Your task to perform on an android device: allow notifications from all sites in the chrome app Image 0: 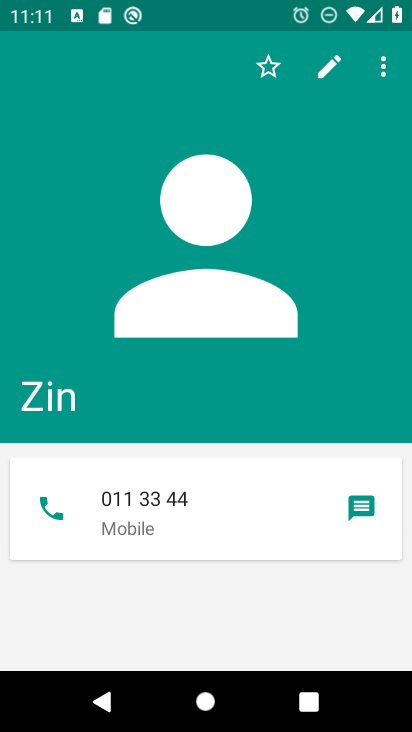
Step 0: press home button
Your task to perform on an android device: allow notifications from all sites in the chrome app Image 1: 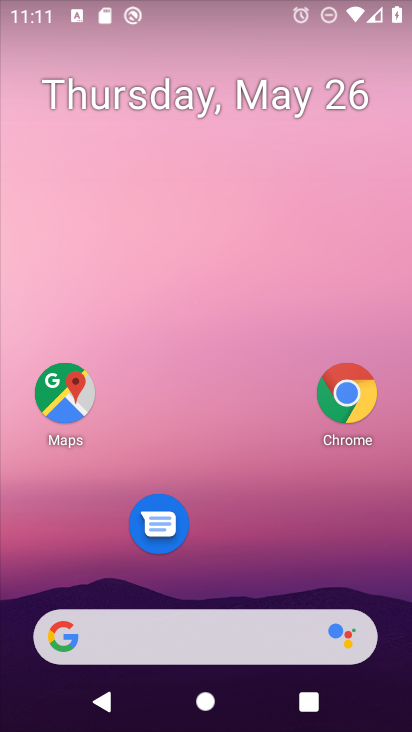
Step 1: click (362, 391)
Your task to perform on an android device: allow notifications from all sites in the chrome app Image 2: 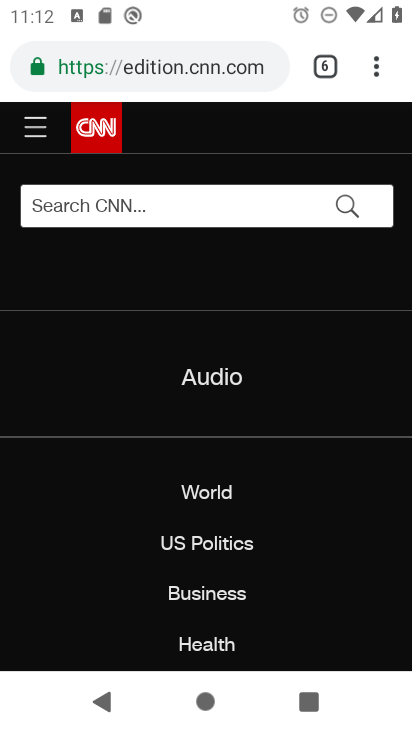
Step 2: click (372, 65)
Your task to perform on an android device: allow notifications from all sites in the chrome app Image 3: 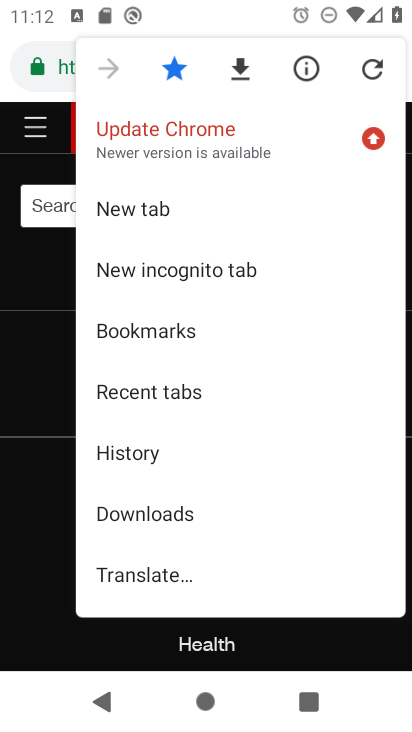
Step 3: drag from (267, 437) to (250, 154)
Your task to perform on an android device: allow notifications from all sites in the chrome app Image 4: 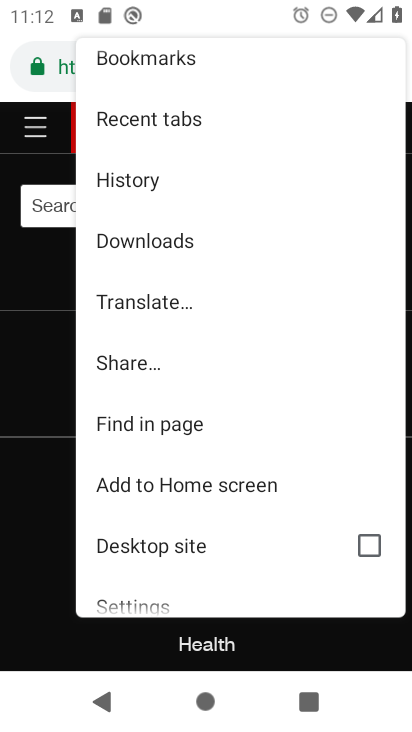
Step 4: drag from (232, 543) to (238, 283)
Your task to perform on an android device: allow notifications from all sites in the chrome app Image 5: 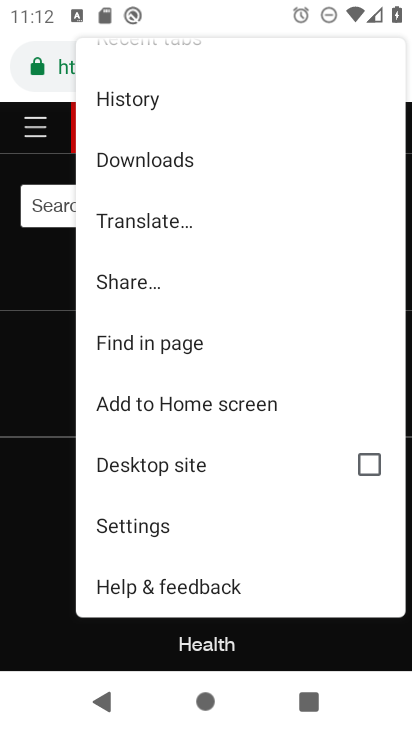
Step 5: click (202, 520)
Your task to perform on an android device: allow notifications from all sites in the chrome app Image 6: 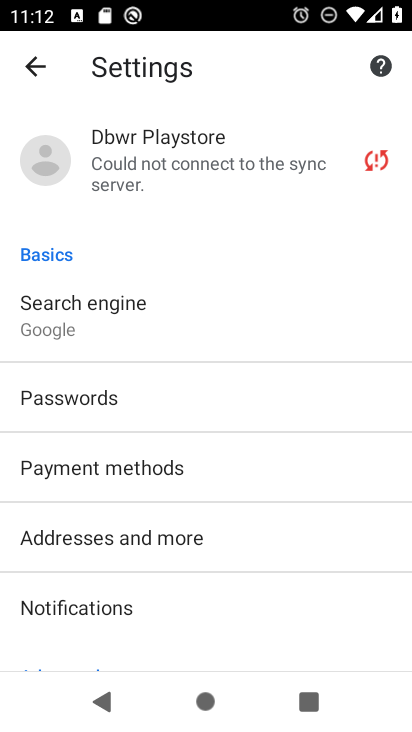
Step 6: click (200, 609)
Your task to perform on an android device: allow notifications from all sites in the chrome app Image 7: 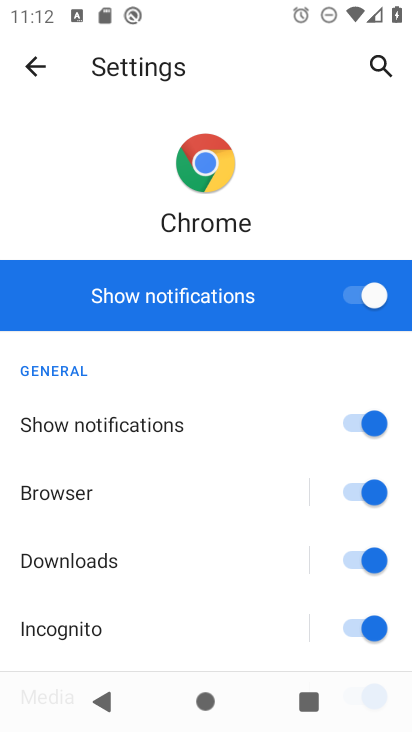
Step 7: task complete